Your task to perform on an android device: What's the weather going to be tomorrow? Image 0: 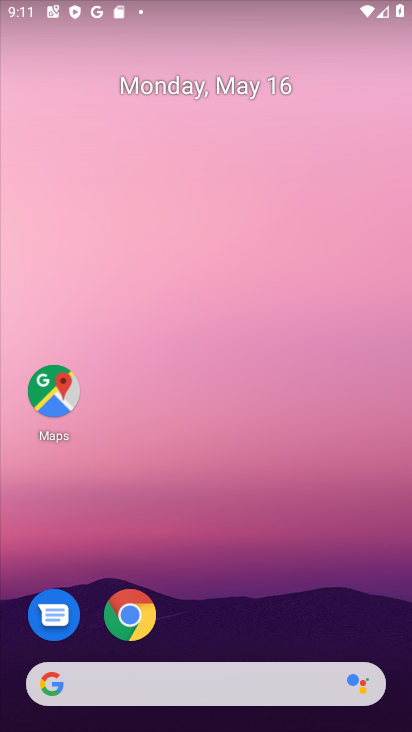
Step 0: click (134, 683)
Your task to perform on an android device: What's the weather going to be tomorrow? Image 1: 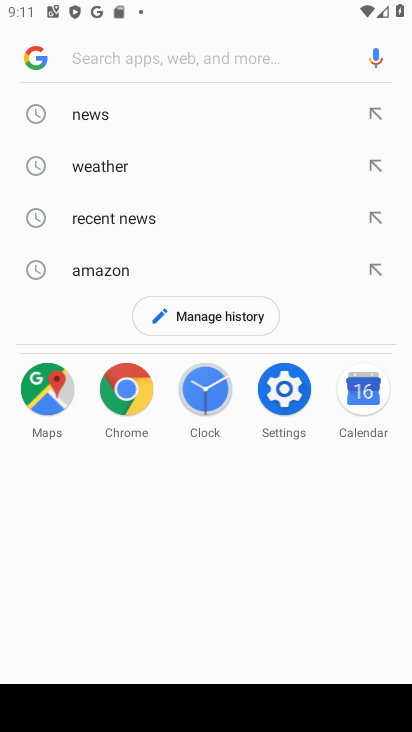
Step 1: click (125, 158)
Your task to perform on an android device: What's the weather going to be tomorrow? Image 2: 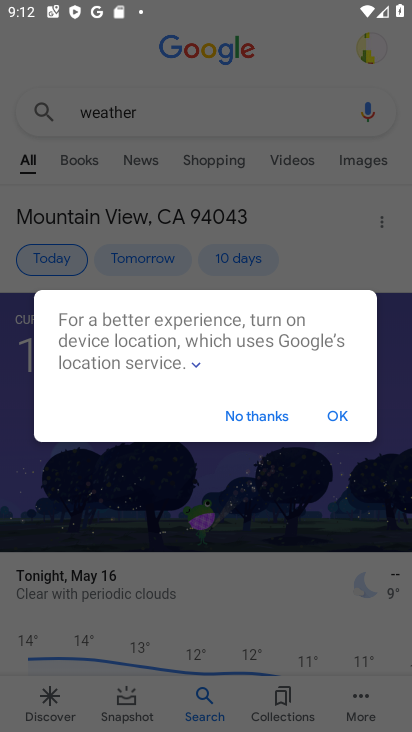
Step 2: click (140, 263)
Your task to perform on an android device: What's the weather going to be tomorrow? Image 3: 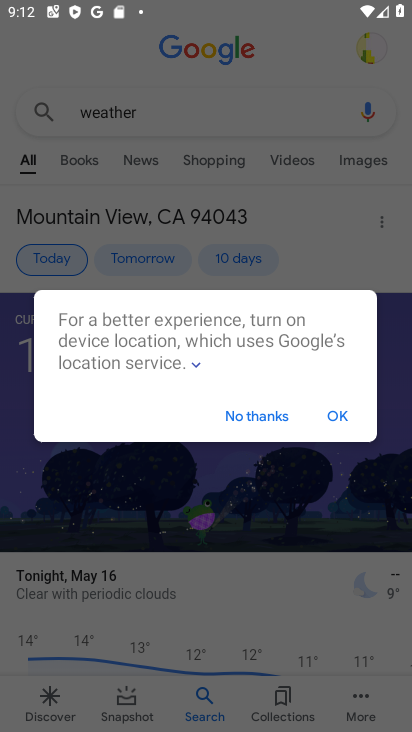
Step 3: click (278, 419)
Your task to perform on an android device: What's the weather going to be tomorrow? Image 4: 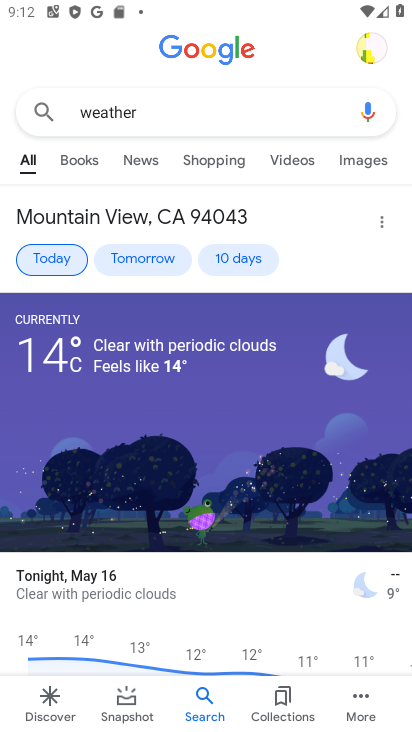
Step 4: click (149, 258)
Your task to perform on an android device: What's the weather going to be tomorrow? Image 5: 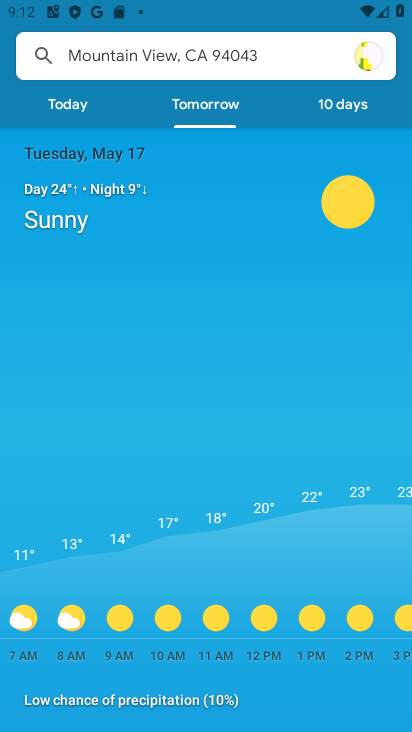
Step 5: task complete